Your task to perform on an android device: Open location settings Image 0: 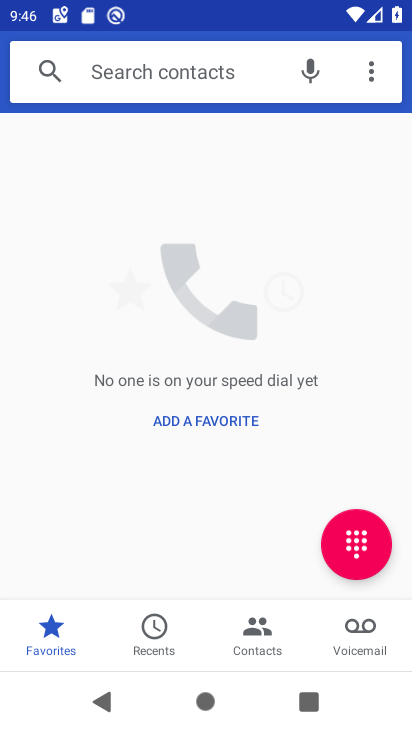
Step 0: press home button
Your task to perform on an android device: Open location settings Image 1: 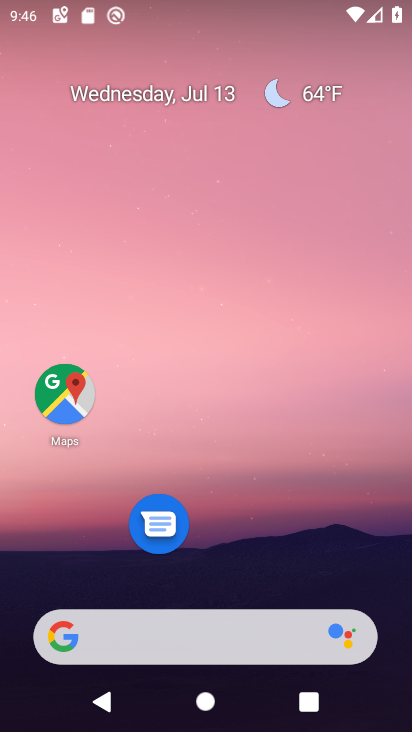
Step 1: drag from (254, 579) to (192, 134)
Your task to perform on an android device: Open location settings Image 2: 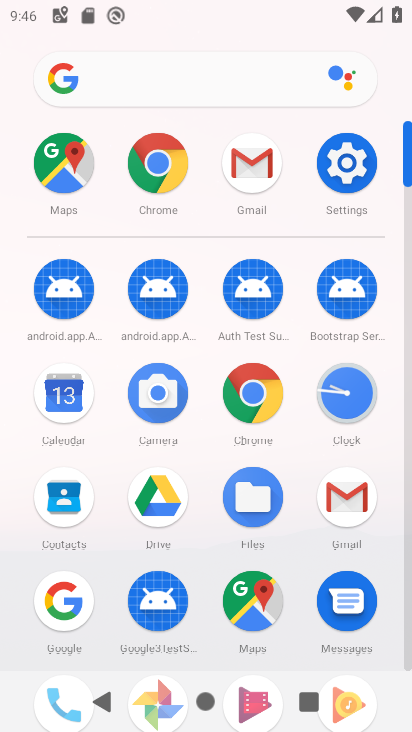
Step 2: click (354, 181)
Your task to perform on an android device: Open location settings Image 3: 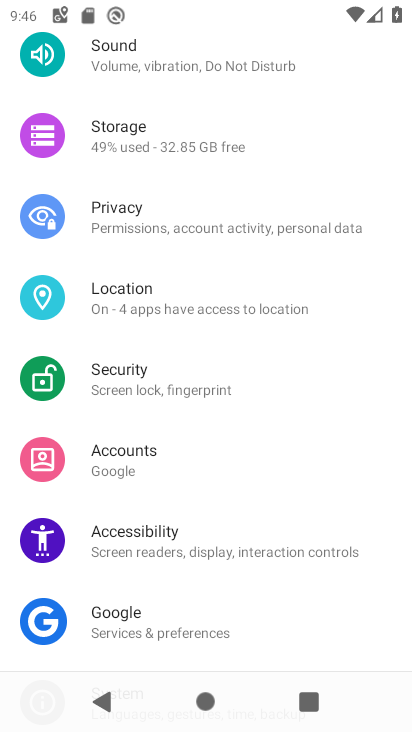
Step 3: click (133, 296)
Your task to perform on an android device: Open location settings Image 4: 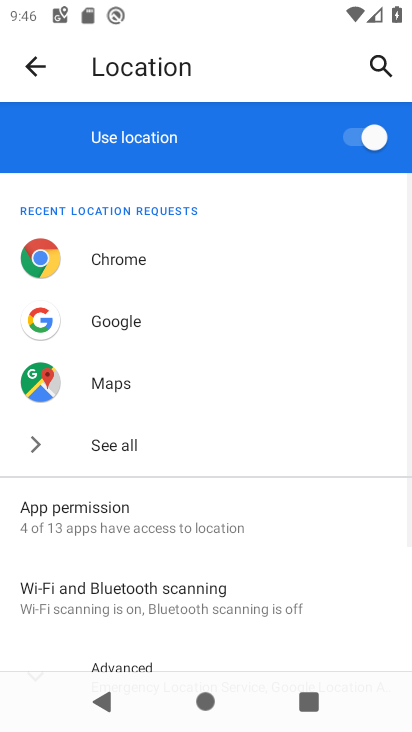
Step 4: task complete